Your task to perform on an android device: Open my contact list Image 0: 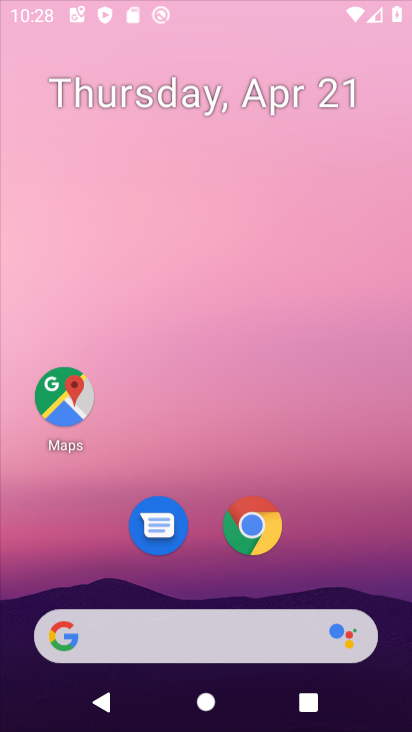
Step 0: click (336, 58)
Your task to perform on an android device: Open my contact list Image 1: 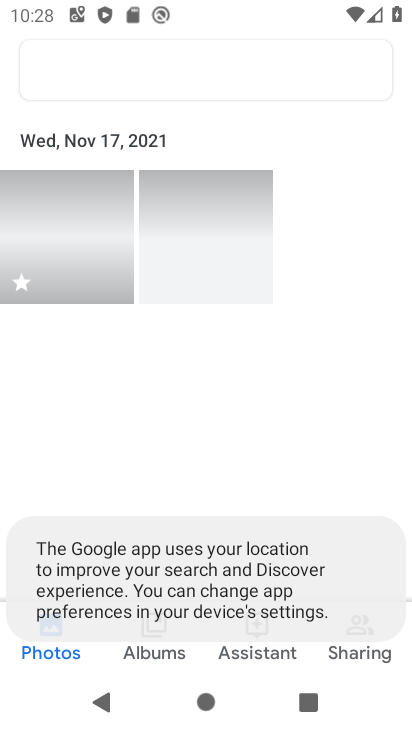
Step 1: drag from (297, 565) to (345, 190)
Your task to perform on an android device: Open my contact list Image 2: 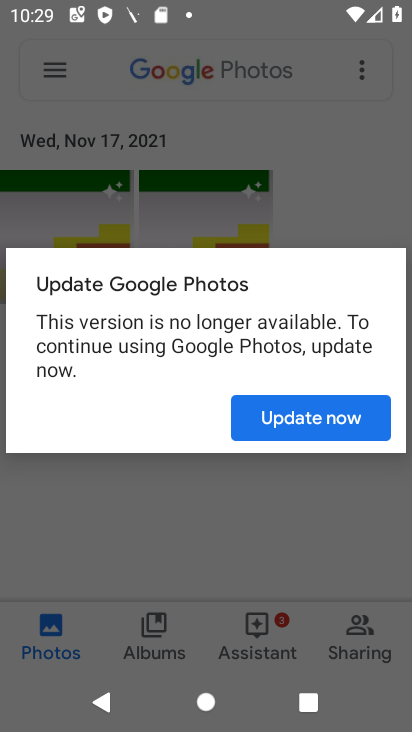
Step 2: press home button
Your task to perform on an android device: Open my contact list Image 3: 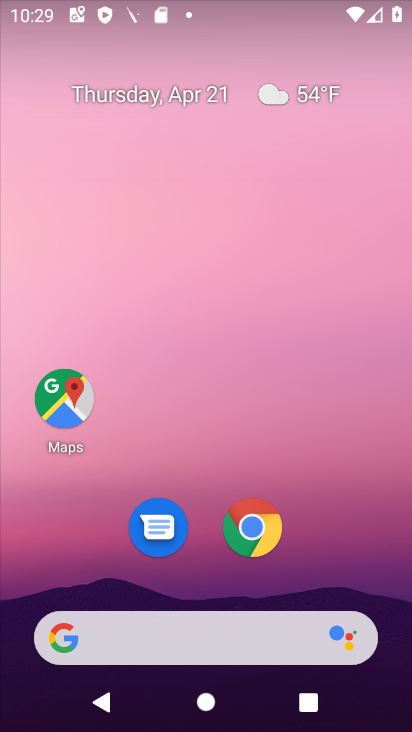
Step 3: drag from (317, 559) to (307, 169)
Your task to perform on an android device: Open my contact list Image 4: 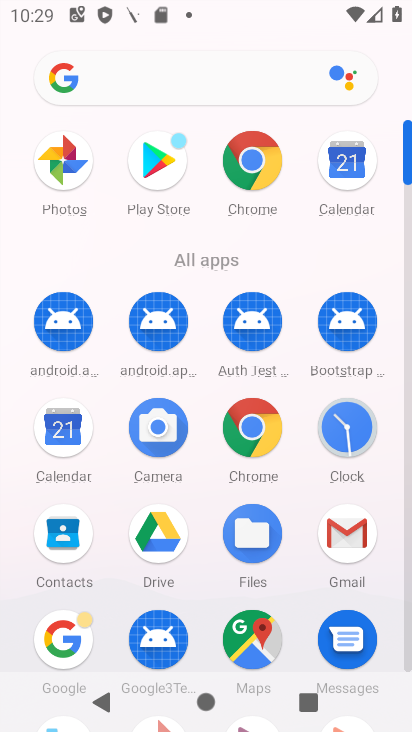
Step 4: click (68, 548)
Your task to perform on an android device: Open my contact list Image 5: 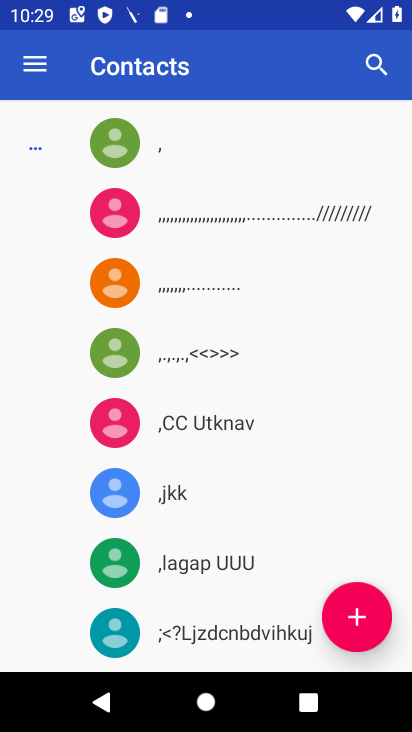
Step 5: task complete